Your task to perform on an android device: toggle data saver in the chrome app Image 0: 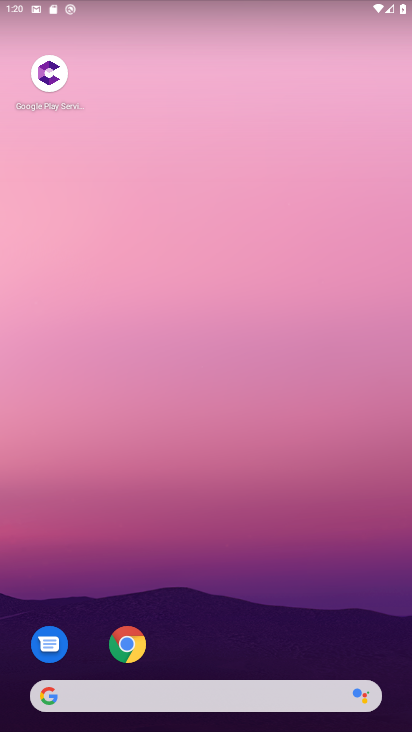
Step 0: click (129, 641)
Your task to perform on an android device: toggle data saver in the chrome app Image 1: 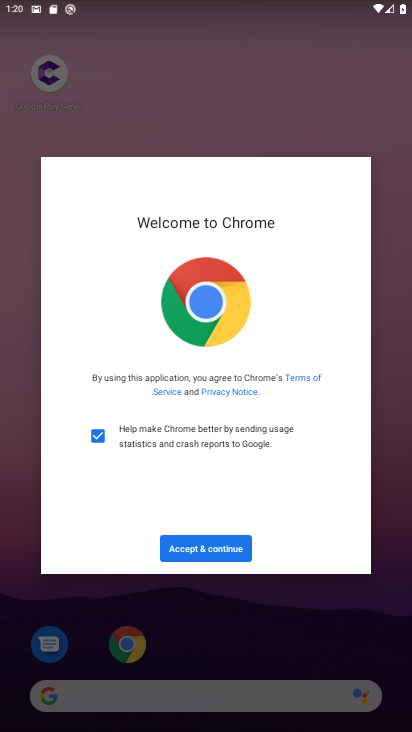
Step 1: click (232, 547)
Your task to perform on an android device: toggle data saver in the chrome app Image 2: 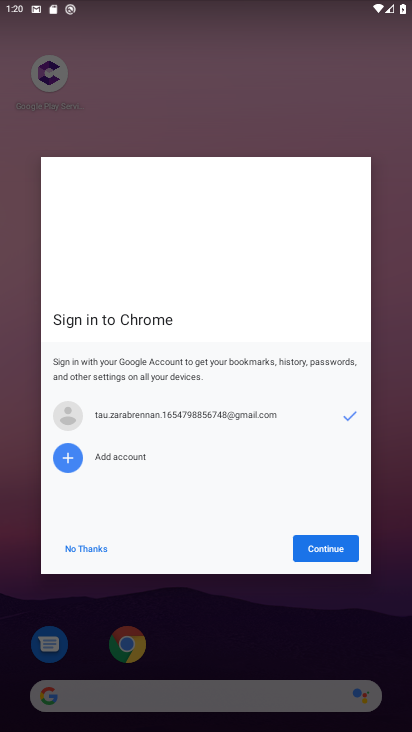
Step 2: click (309, 545)
Your task to perform on an android device: toggle data saver in the chrome app Image 3: 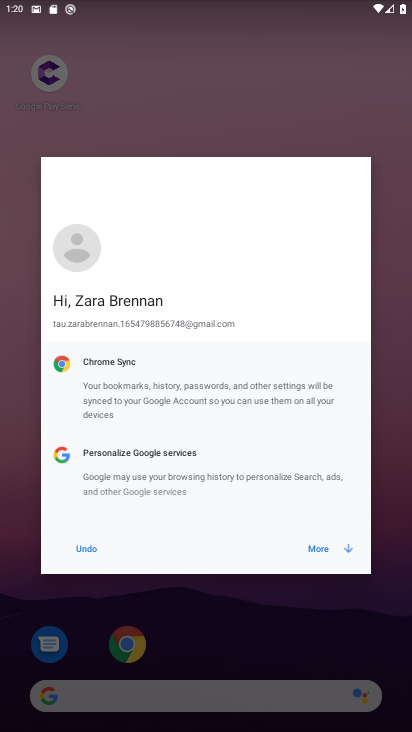
Step 3: click (309, 545)
Your task to perform on an android device: toggle data saver in the chrome app Image 4: 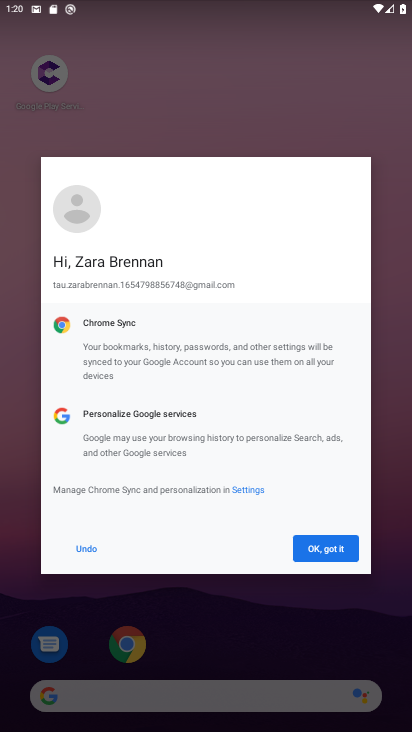
Step 4: click (309, 545)
Your task to perform on an android device: toggle data saver in the chrome app Image 5: 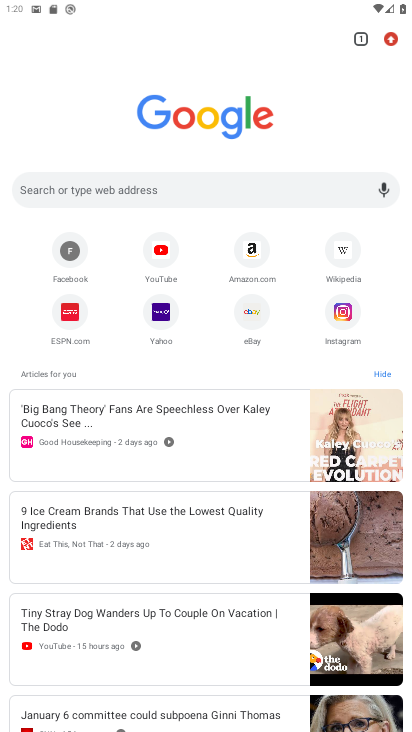
Step 5: click (385, 34)
Your task to perform on an android device: toggle data saver in the chrome app Image 6: 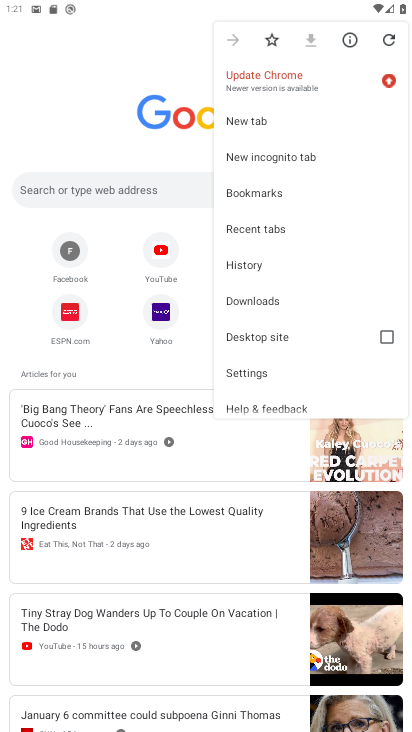
Step 6: click (255, 374)
Your task to perform on an android device: toggle data saver in the chrome app Image 7: 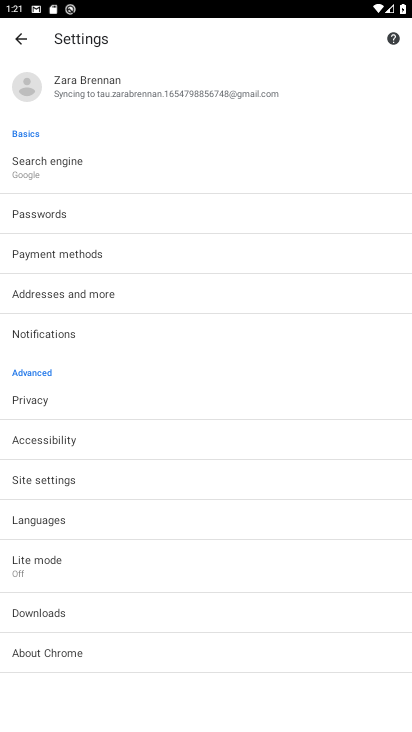
Step 7: click (55, 563)
Your task to perform on an android device: toggle data saver in the chrome app Image 8: 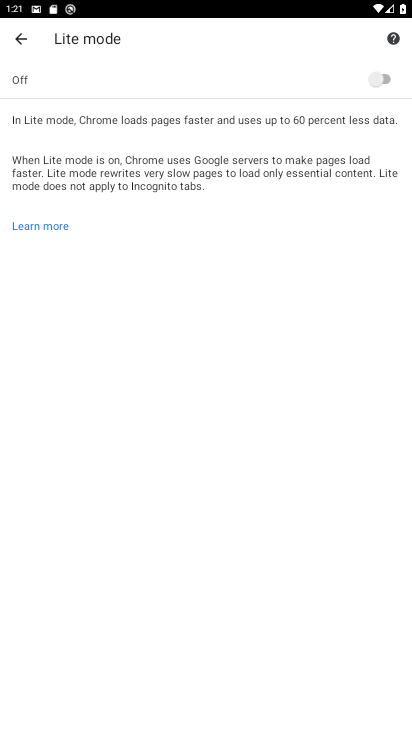
Step 8: click (388, 79)
Your task to perform on an android device: toggle data saver in the chrome app Image 9: 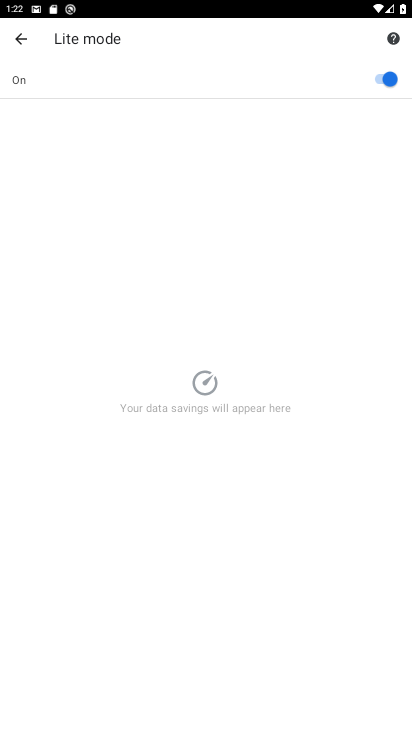
Step 9: task complete